Your task to perform on an android device: Open calendar and show me the first week of next month Image 0: 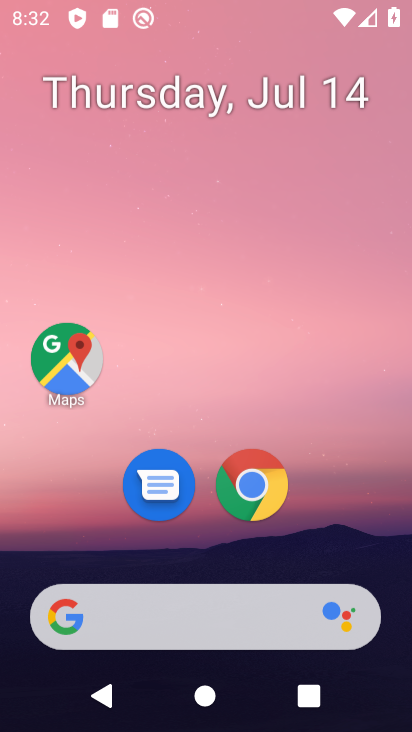
Step 0: click (241, 58)
Your task to perform on an android device: Open calendar and show me the first week of next month Image 1: 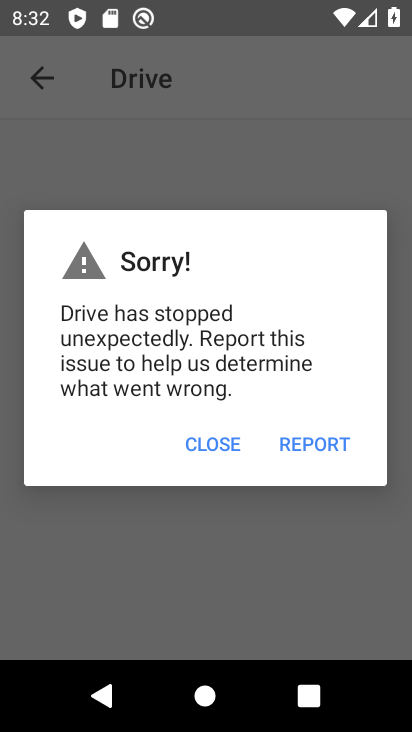
Step 1: click (197, 419)
Your task to perform on an android device: Open calendar and show me the first week of next month Image 2: 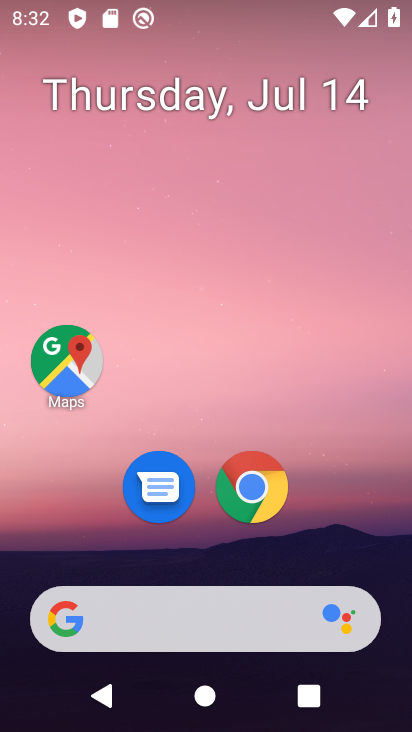
Step 2: drag from (189, 584) to (237, 45)
Your task to perform on an android device: Open calendar and show me the first week of next month Image 3: 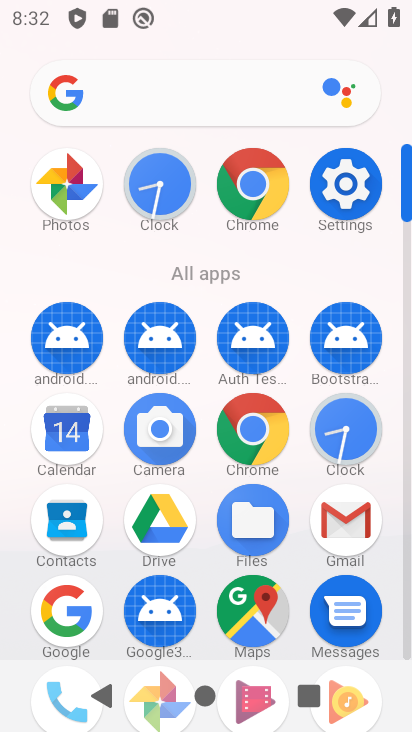
Step 3: click (75, 430)
Your task to perform on an android device: Open calendar and show me the first week of next month Image 4: 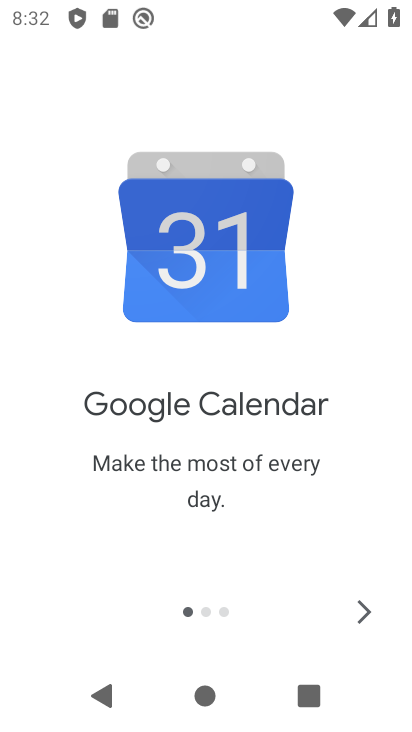
Step 4: click (353, 592)
Your task to perform on an android device: Open calendar and show me the first week of next month Image 5: 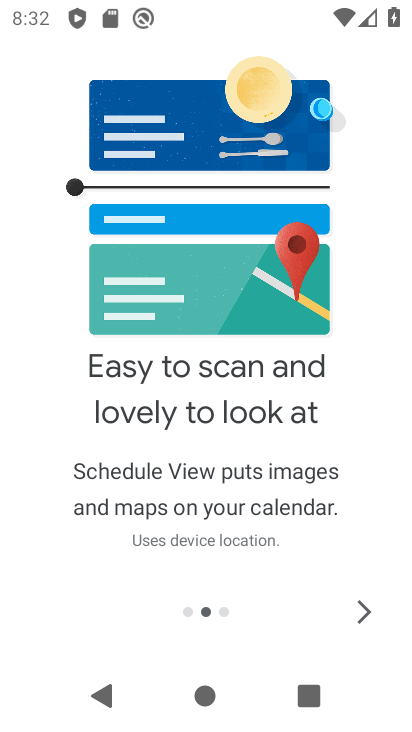
Step 5: click (364, 593)
Your task to perform on an android device: Open calendar and show me the first week of next month Image 6: 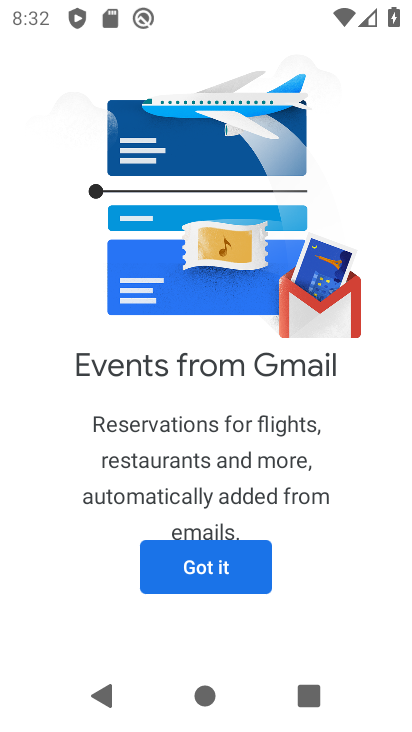
Step 6: click (193, 564)
Your task to perform on an android device: Open calendar and show me the first week of next month Image 7: 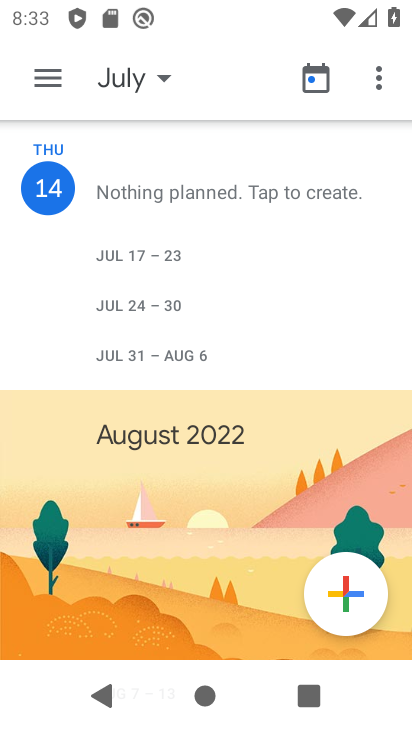
Step 7: click (164, 60)
Your task to perform on an android device: Open calendar and show me the first week of next month Image 8: 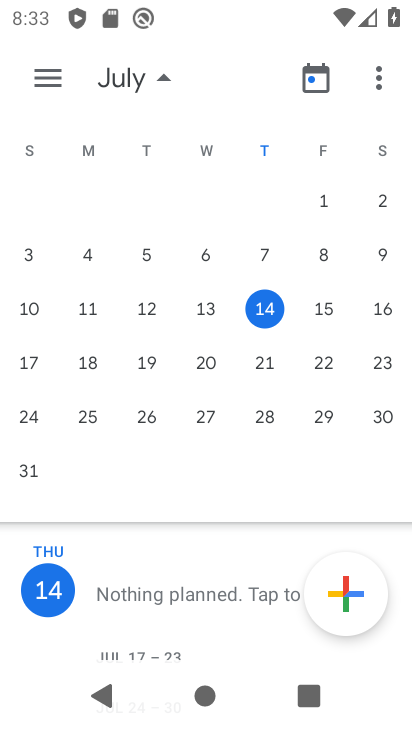
Step 8: drag from (373, 311) to (46, 309)
Your task to perform on an android device: Open calendar and show me the first week of next month Image 9: 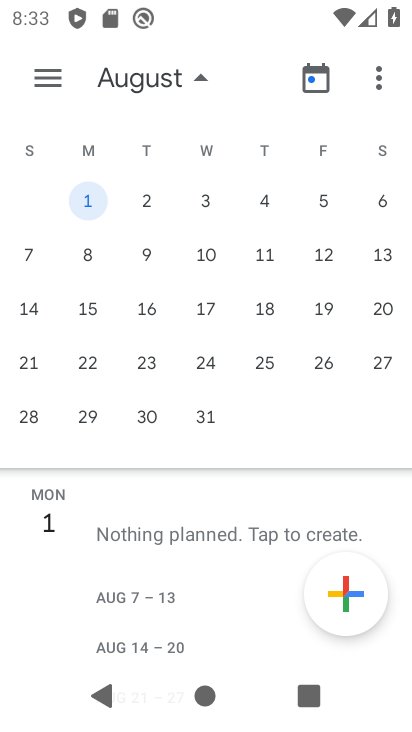
Step 9: click (90, 360)
Your task to perform on an android device: Open calendar and show me the first week of next month Image 10: 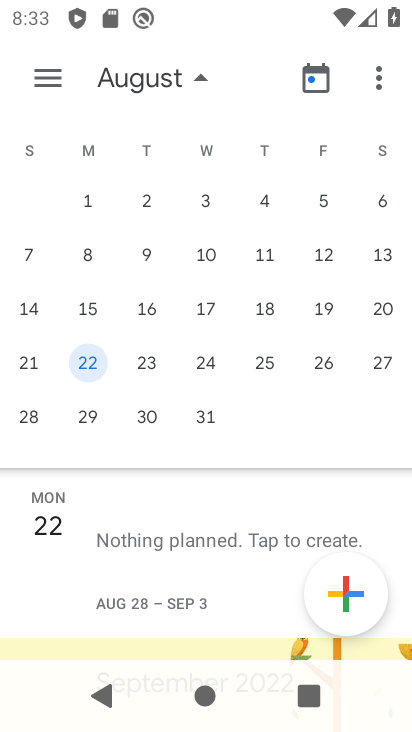
Step 10: task complete